Your task to perform on an android device: open app "Expedia: Hotels, Flights & Car" (install if not already installed) Image 0: 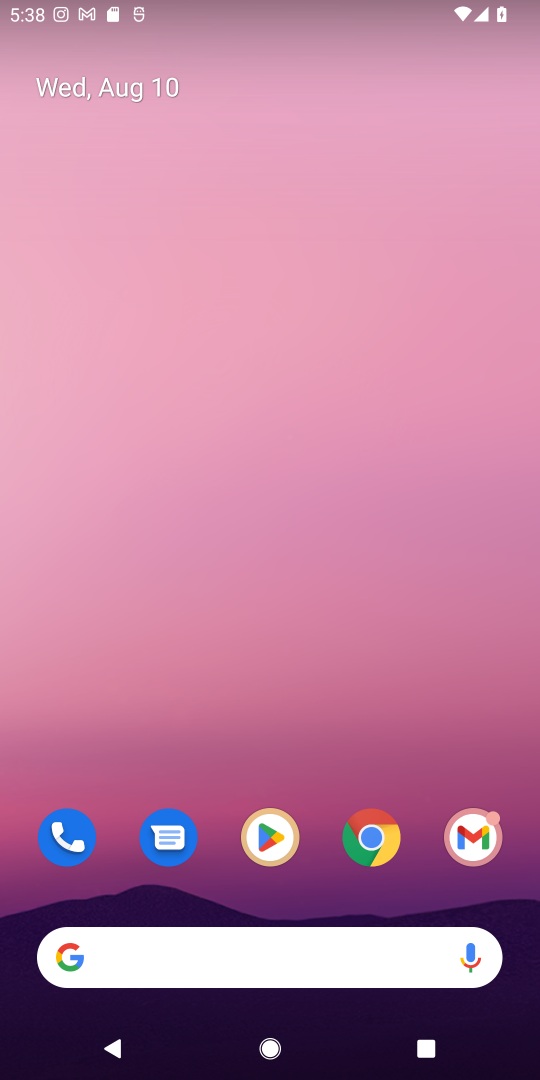
Step 0: press home button
Your task to perform on an android device: open app "Expedia: Hotels, Flights & Car" (install if not already installed) Image 1: 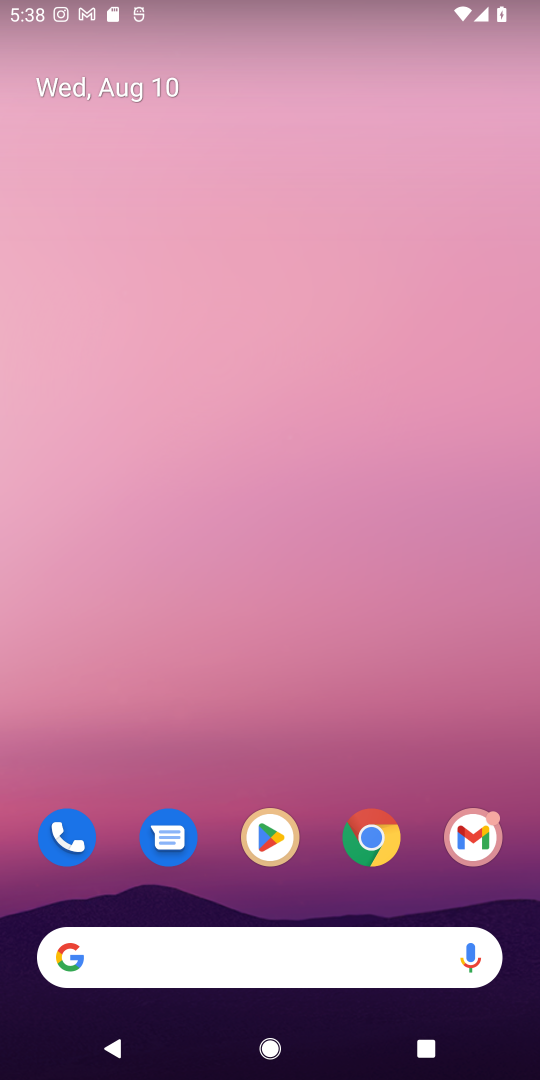
Step 1: click (268, 838)
Your task to perform on an android device: open app "Expedia: Hotels, Flights & Car" (install if not already installed) Image 2: 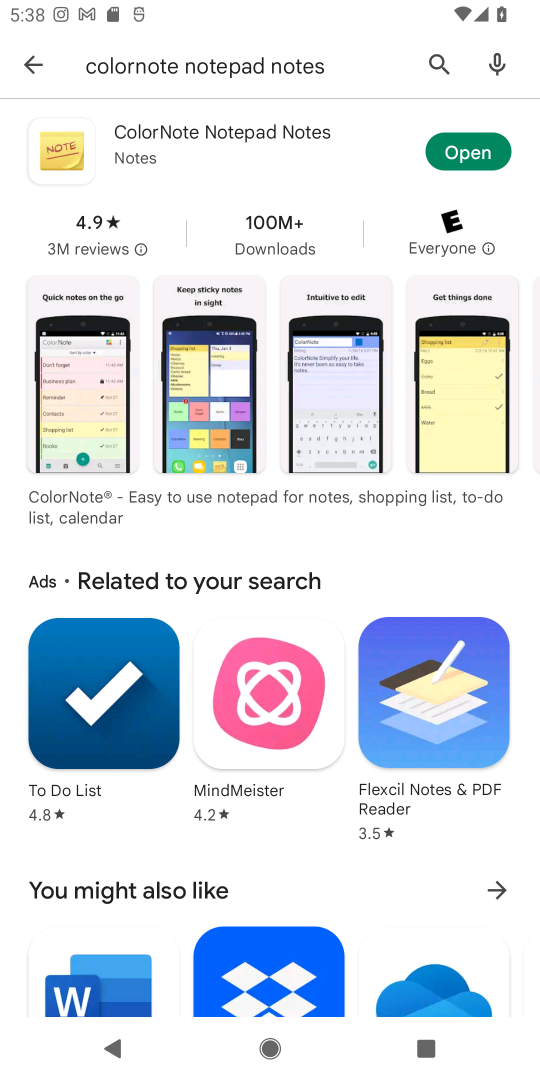
Step 2: click (433, 55)
Your task to perform on an android device: open app "Expedia: Hotels, Flights & Car" (install if not already installed) Image 3: 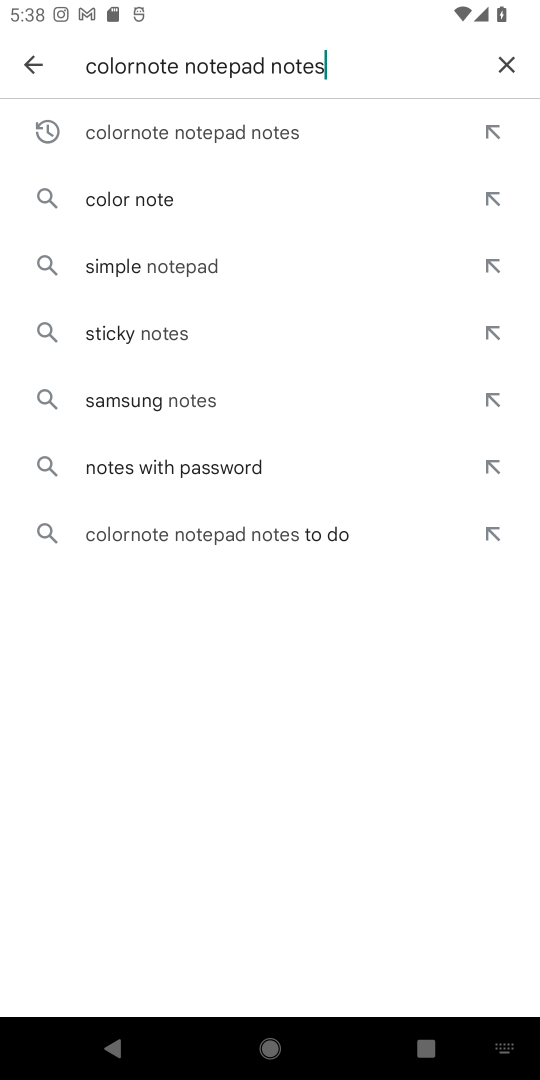
Step 3: click (505, 62)
Your task to perform on an android device: open app "Expedia: Hotels, Flights & Car" (install if not already installed) Image 4: 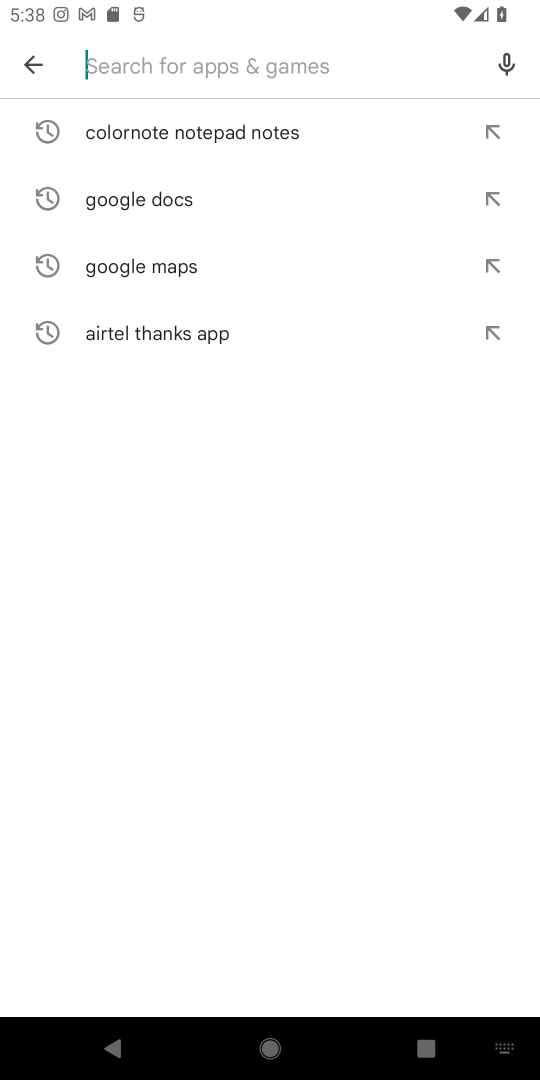
Step 4: type "Expedia: Hotels, Flights & Car"
Your task to perform on an android device: open app "Expedia: Hotels, Flights & Car" (install if not already installed) Image 5: 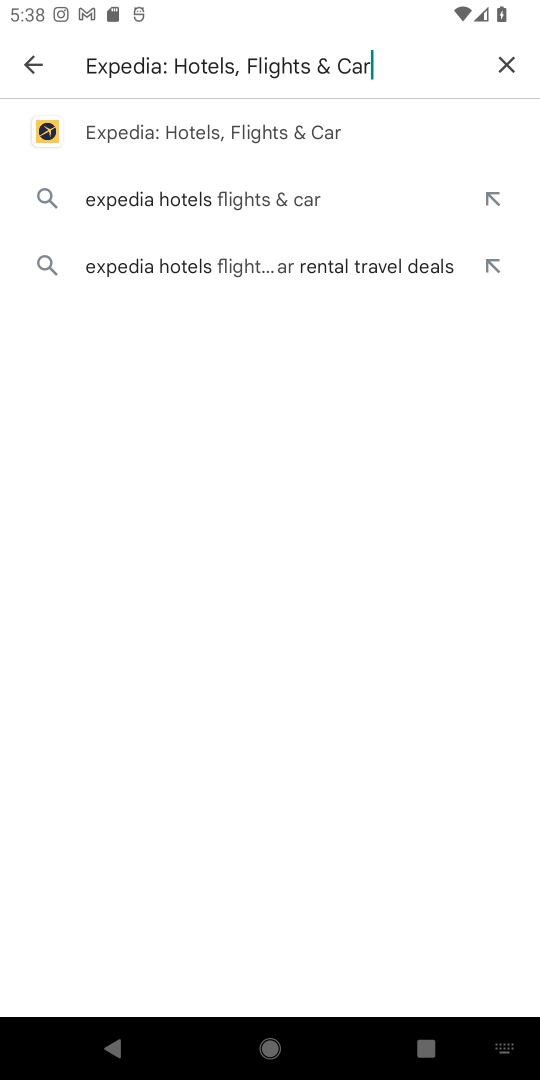
Step 5: click (258, 140)
Your task to perform on an android device: open app "Expedia: Hotels, Flights & Car" (install if not already installed) Image 6: 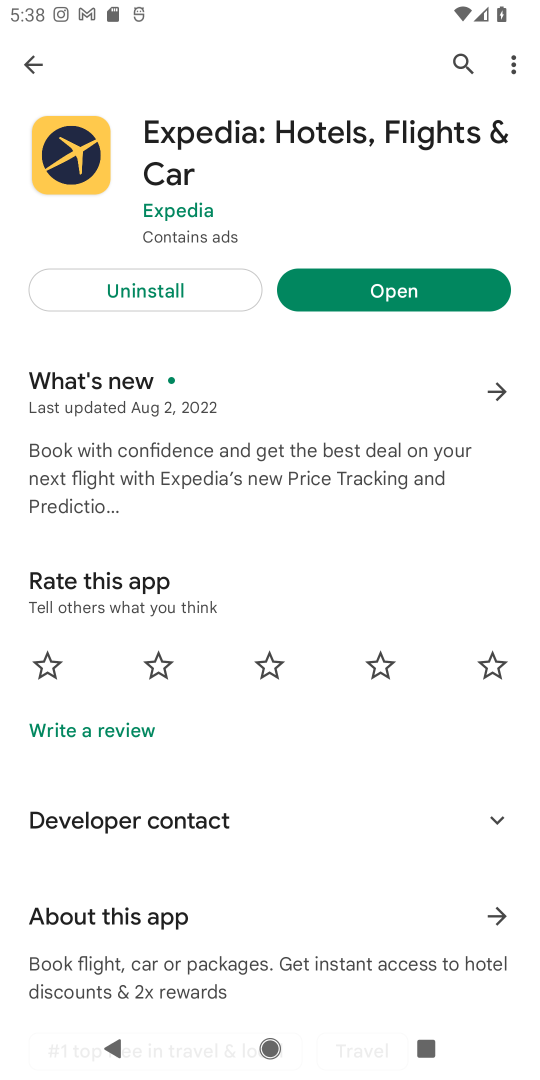
Step 6: click (403, 296)
Your task to perform on an android device: open app "Expedia: Hotels, Flights & Car" (install if not already installed) Image 7: 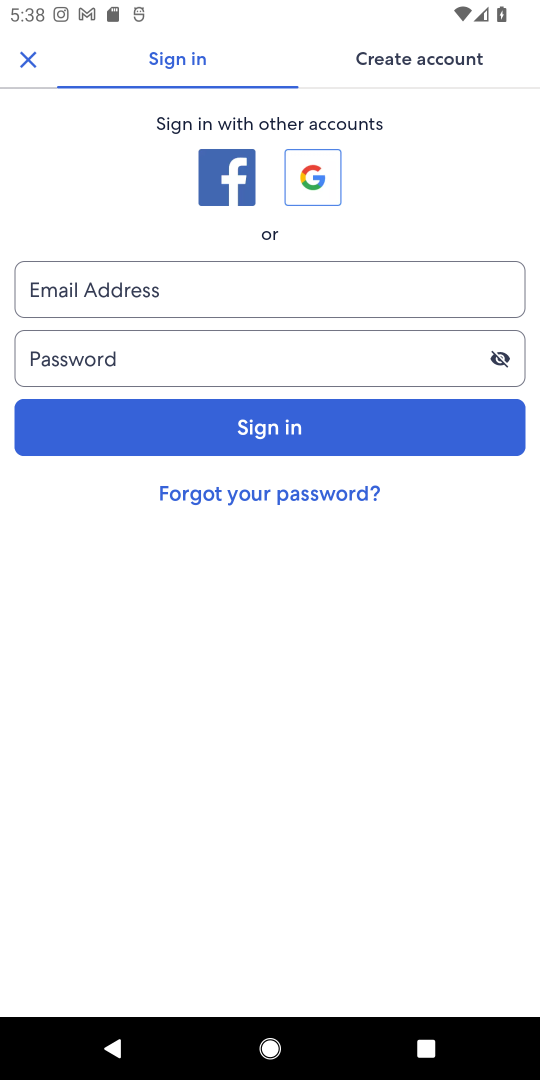
Step 7: task complete